Your task to perform on an android device: see tabs open on other devices in the chrome app Image 0: 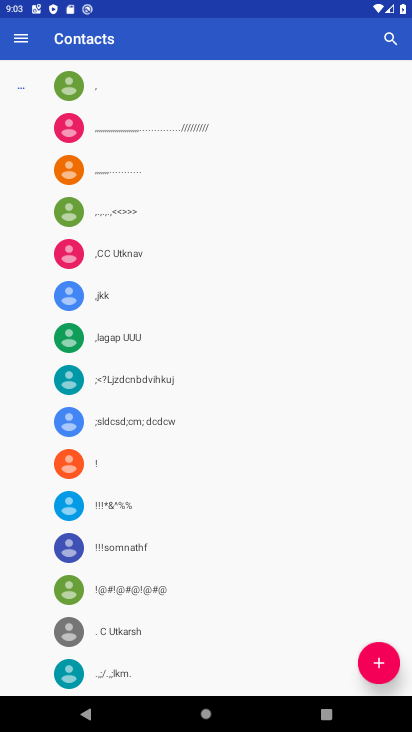
Step 0: press home button
Your task to perform on an android device: see tabs open on other devices in the chrome app Image 1: 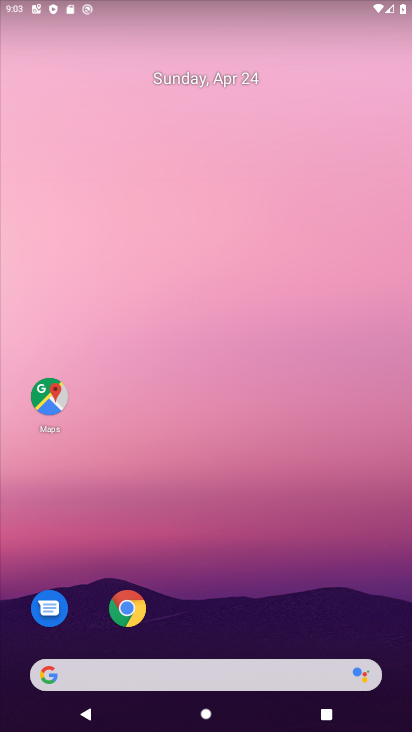
Step 1: drag from (269, 682) to (306, 227)
Your task to perform on an android device: see tabs open on other devices in the chrome app Image 2: 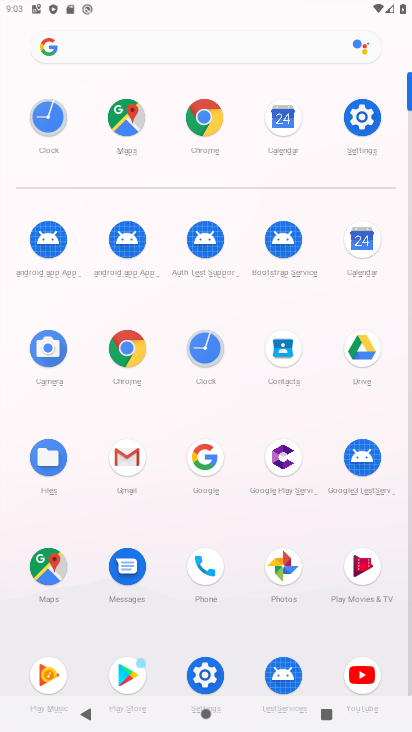
Step 2: click (202, 119)
Your task to perform on an android device: see tabs open on other devices in the chrome app Image 3: 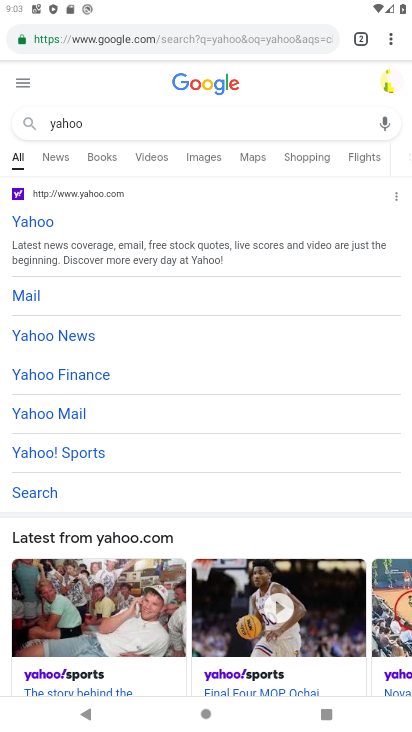
Step 3: click (366, 40)
Your task to perform on an android device: see tabs open on other devices in the chrome app Image 4: 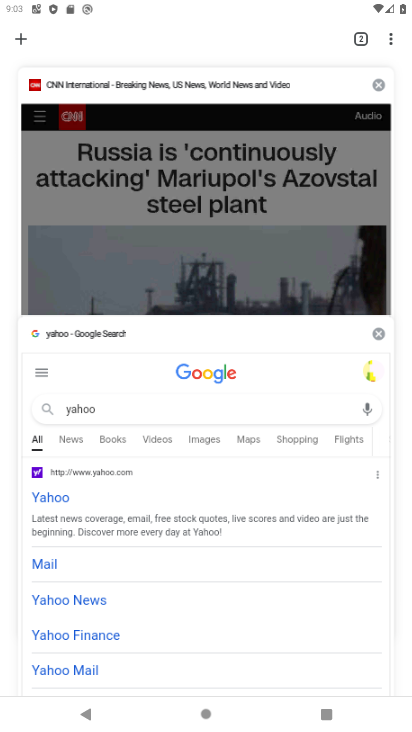
Step 4: click (20, 35)
Your task to perform on an android device: see tabs open on other devices in the chrome app Image 5: 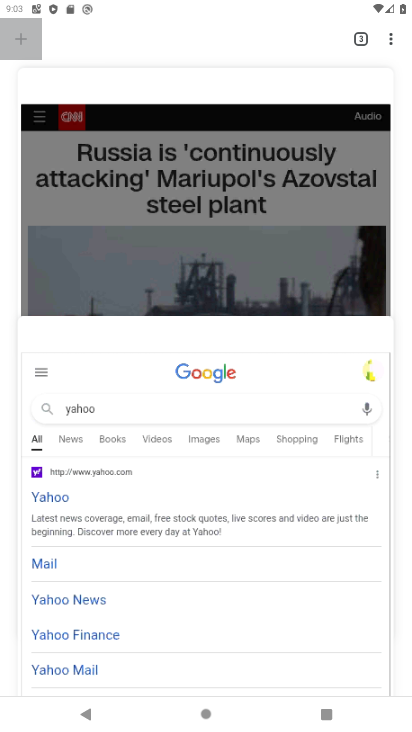
Step 5: task complete